Your task to perform on an android device: open a bookmark in the chrome app Image 0: 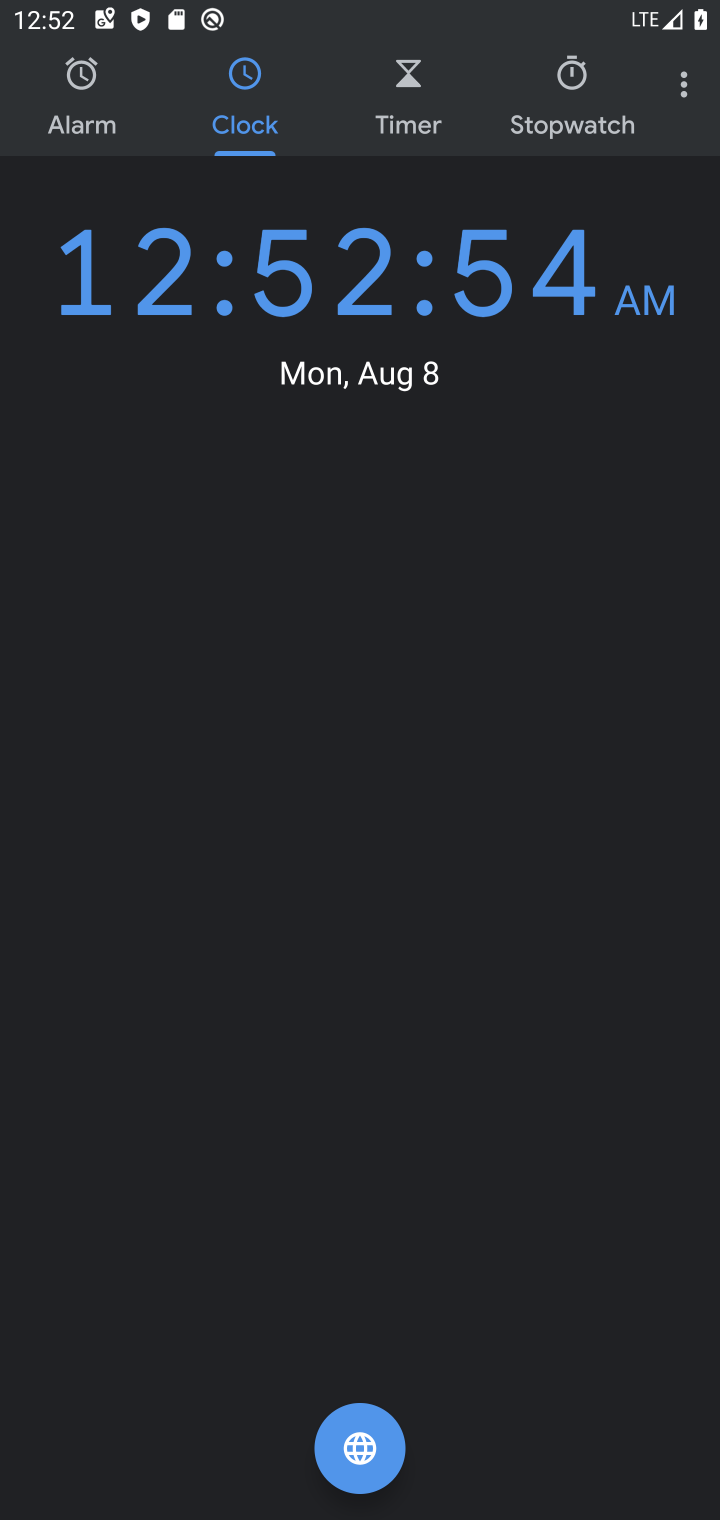
Step 0: press back button
Your task to perform on an android device: open a bookmark in the chrome app Image 1: 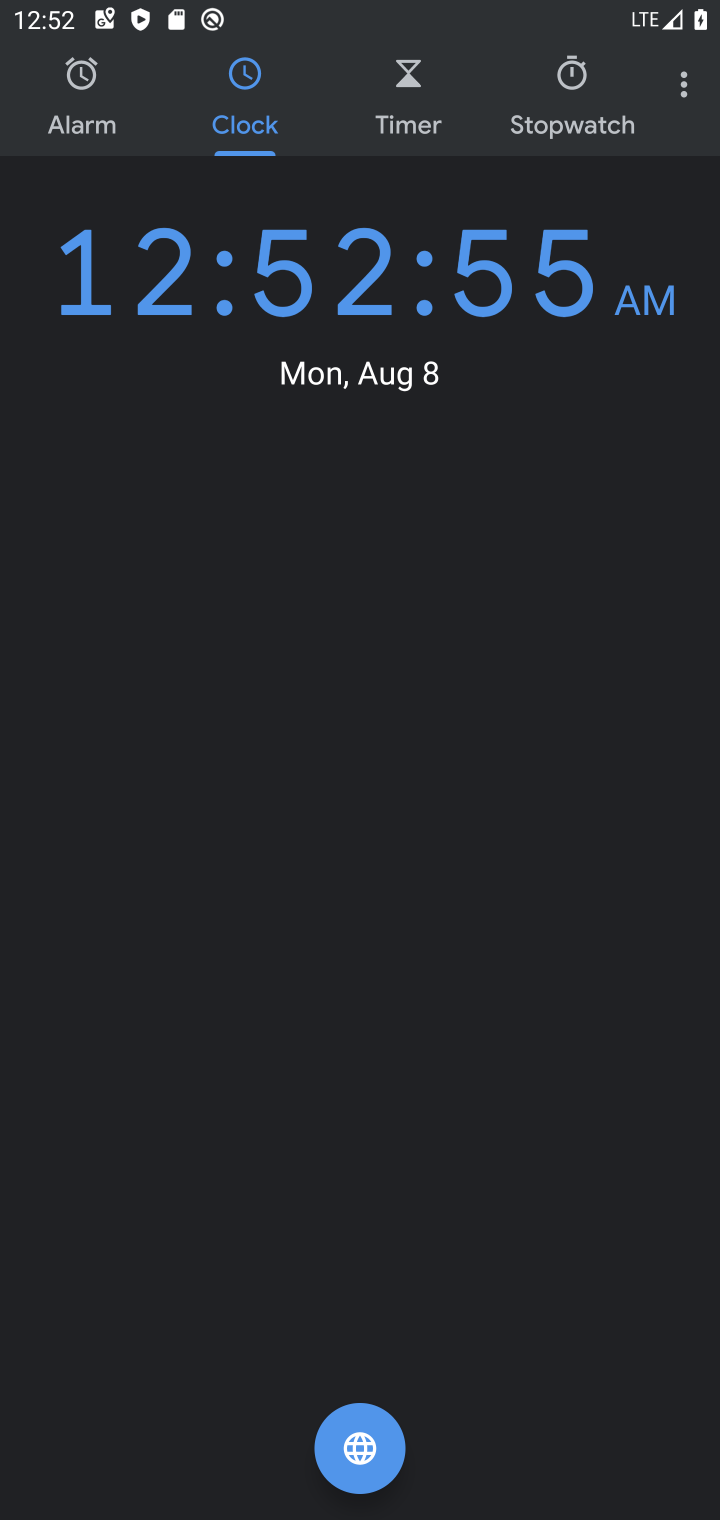
Step 1: press back button
Your task to perform on an android device: open a bookmark in the chrome app Image 2: 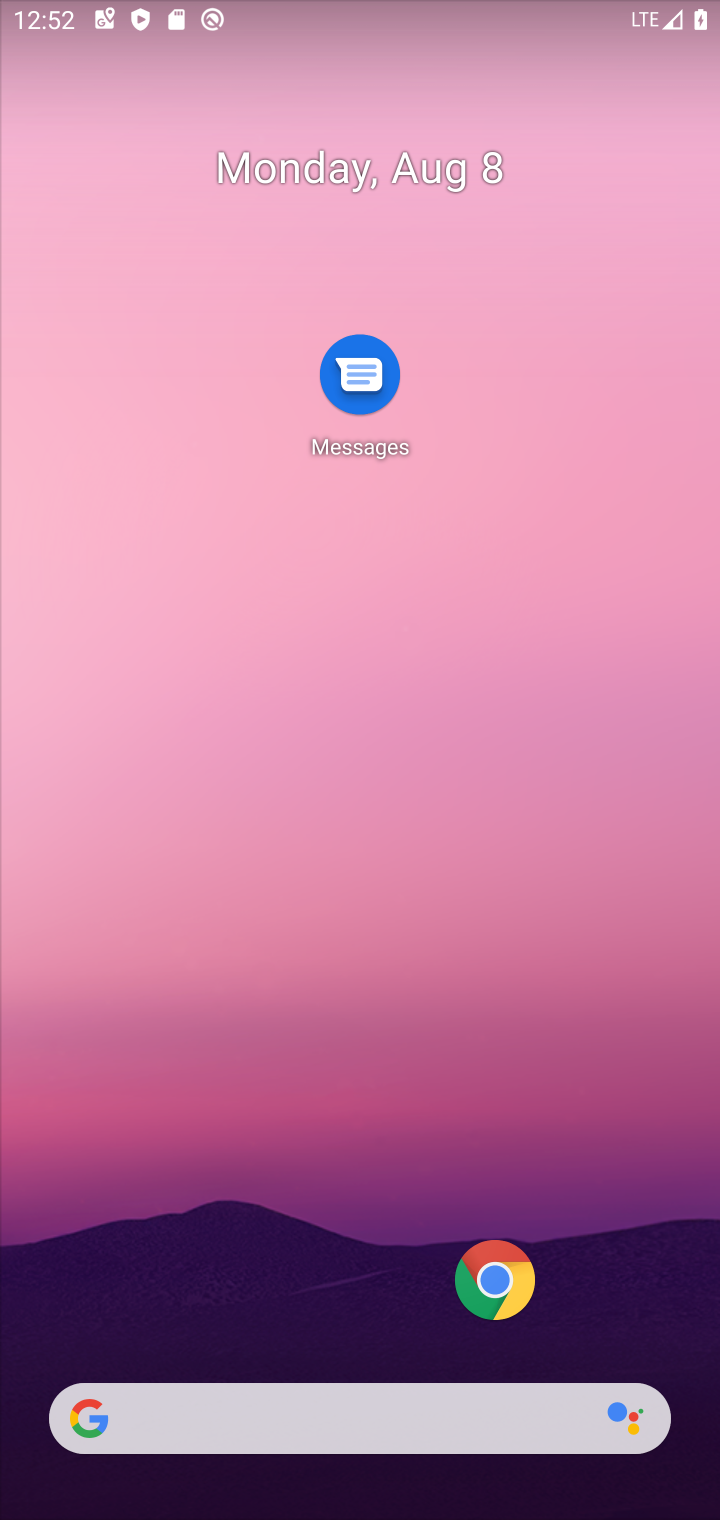
Step 2: press back button
Your task to perform on an android device: open a bookmark in the chrome app Image 3: 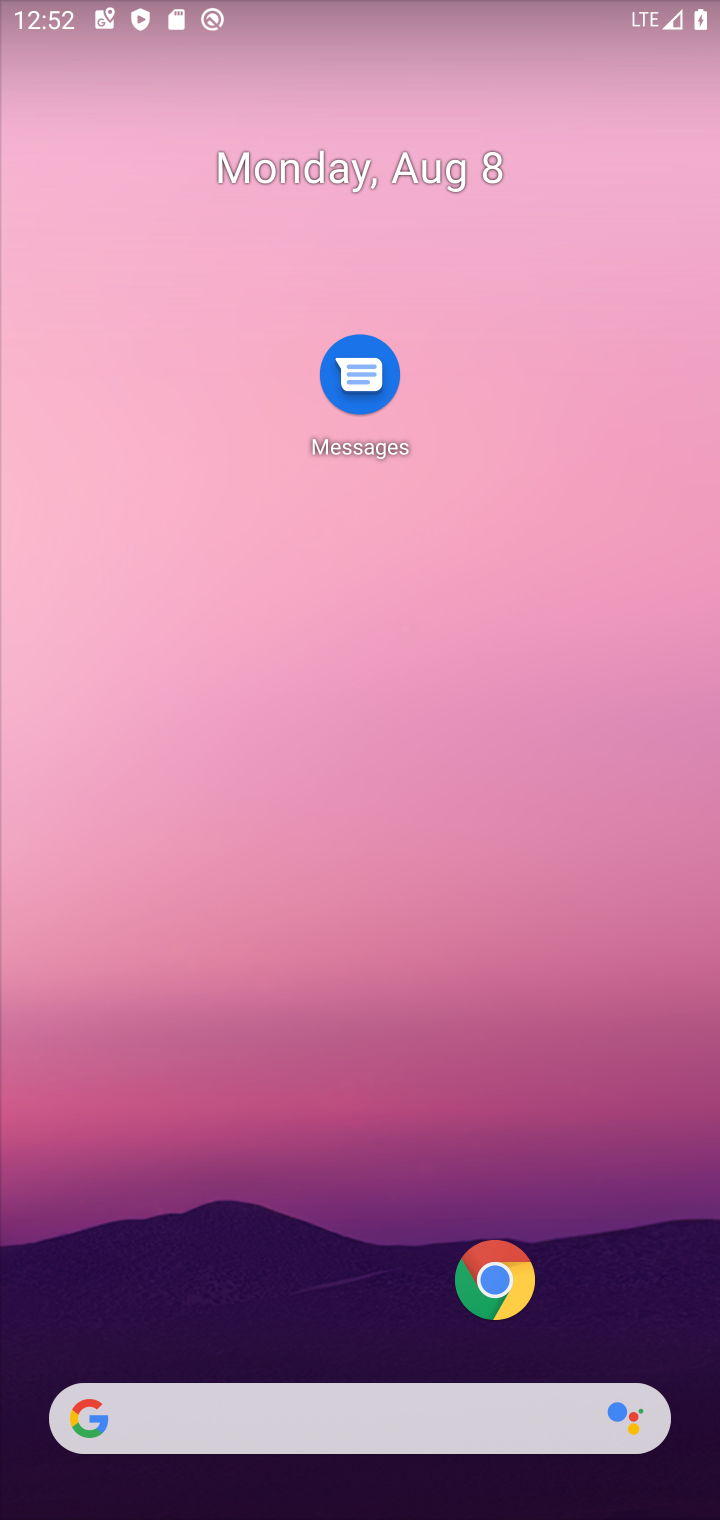
Step 3: drag from (244, 1336) to (511, 1503)
Your task to perform on an android device: open a bookmark in the chrome app Image 4: 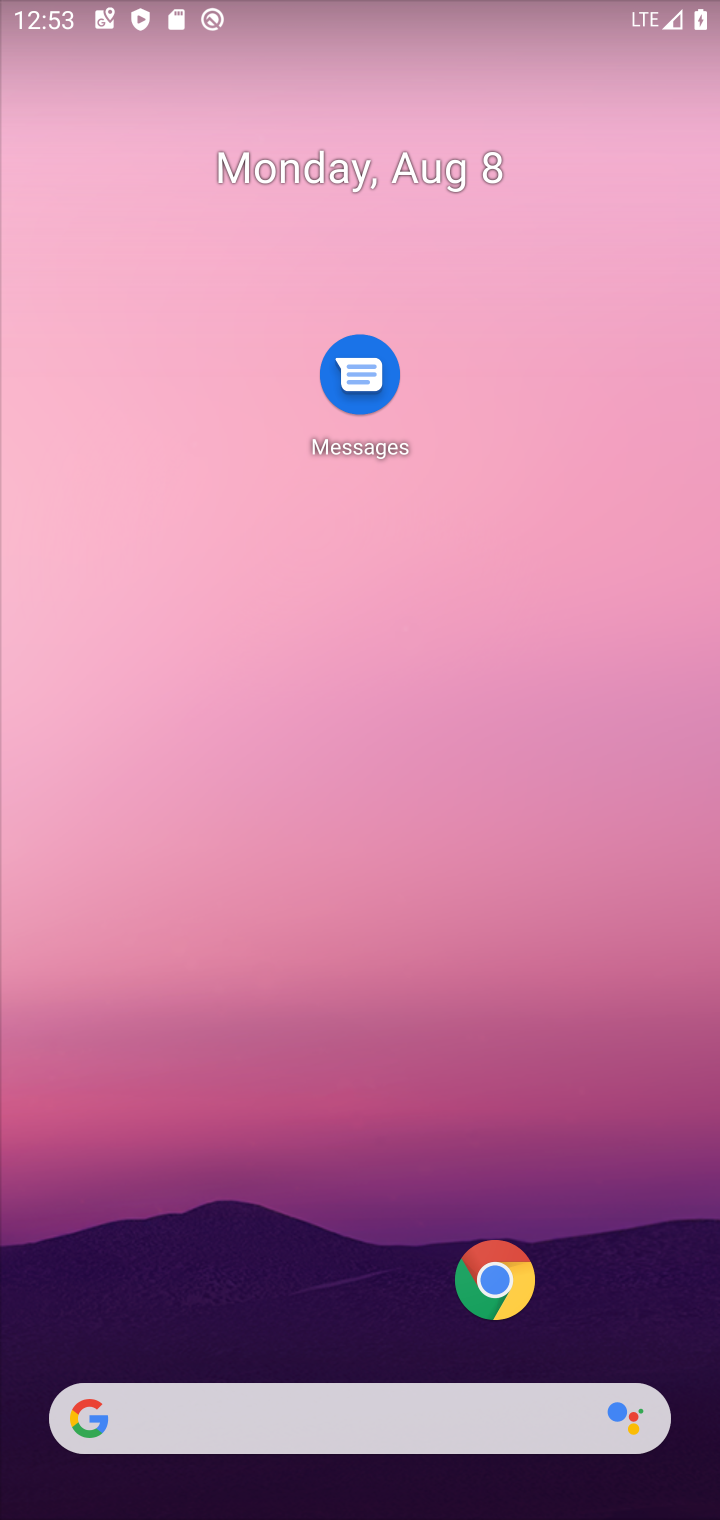
Step 4: click (498, 1281)
Your task to perform on an android device: open a bookmark in the chrome app Image 5: 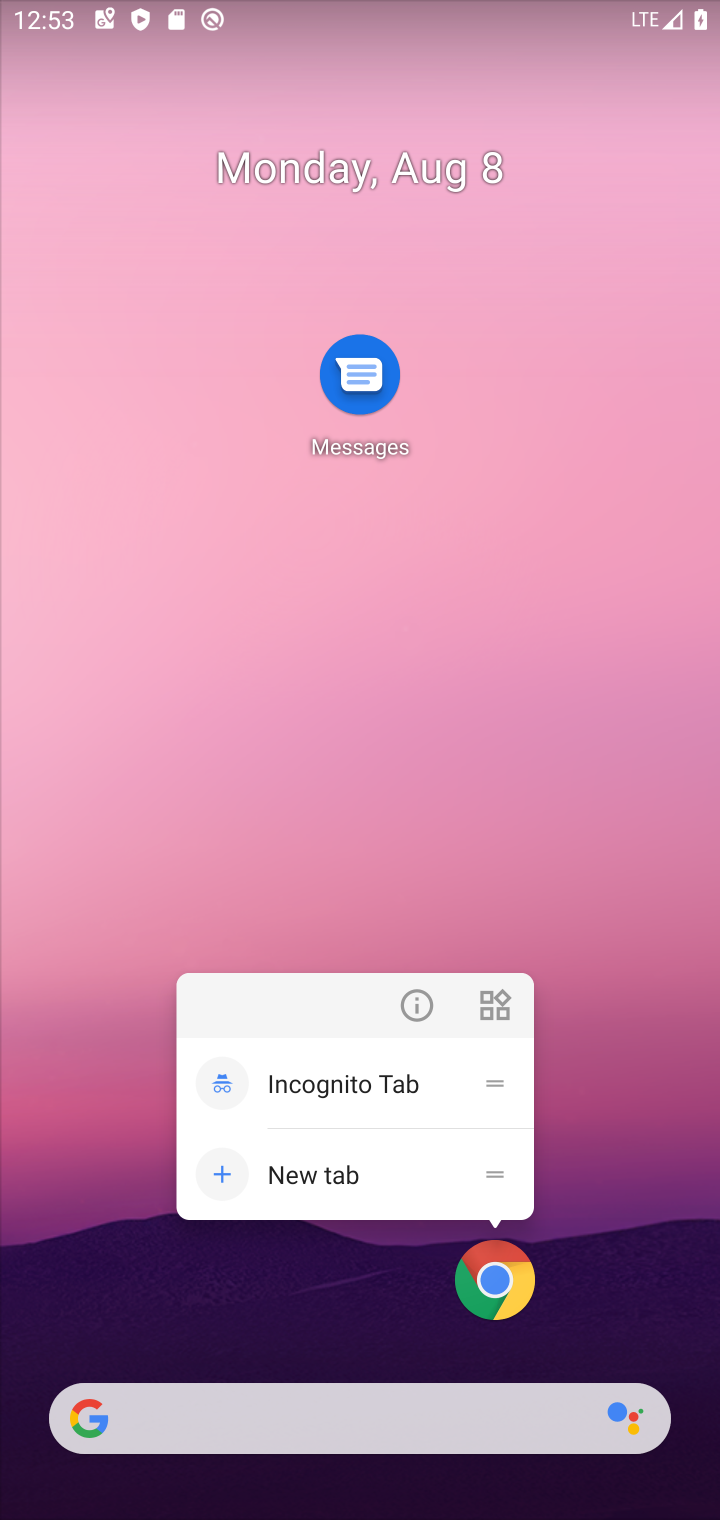
Step 5: click (517, 1269)
Your task to perform on an android device: open a bookmark in the chrome app Image 6: 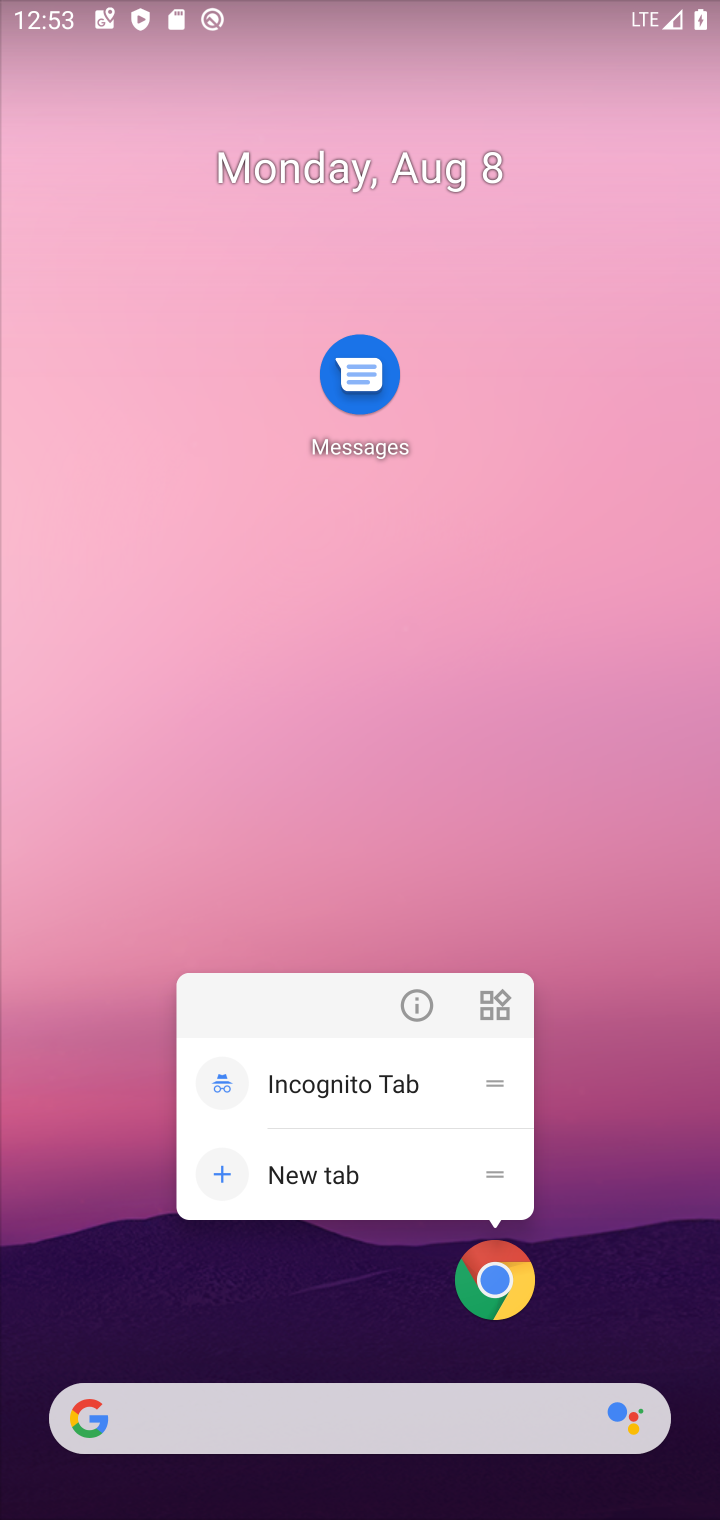
Step 6: click (517, 1287)
Your task to perform on an android device: open a bookmark in the chrome app Image 7: 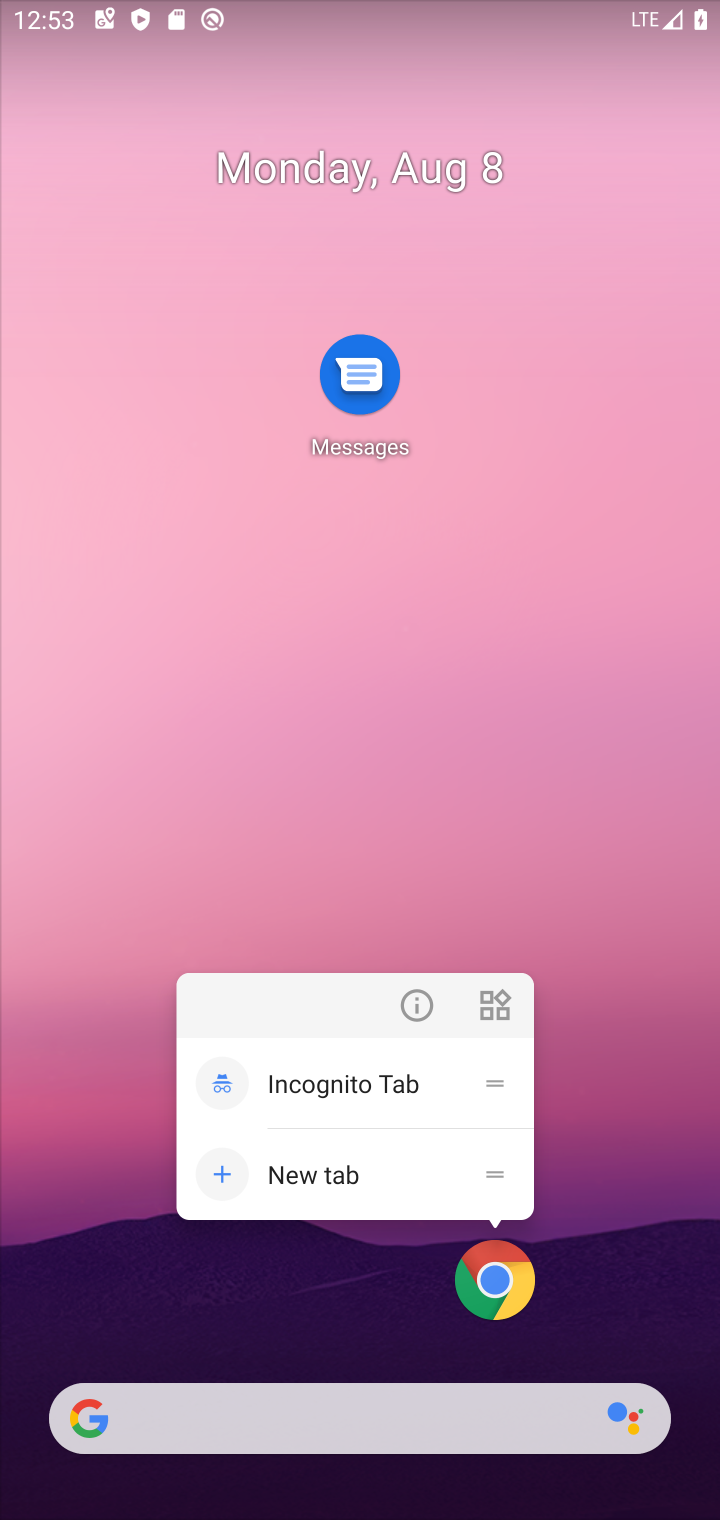
Step 7: click (500, 1277)
Your task to perform on an android device: open a bookmark in the chrome app Image 8: 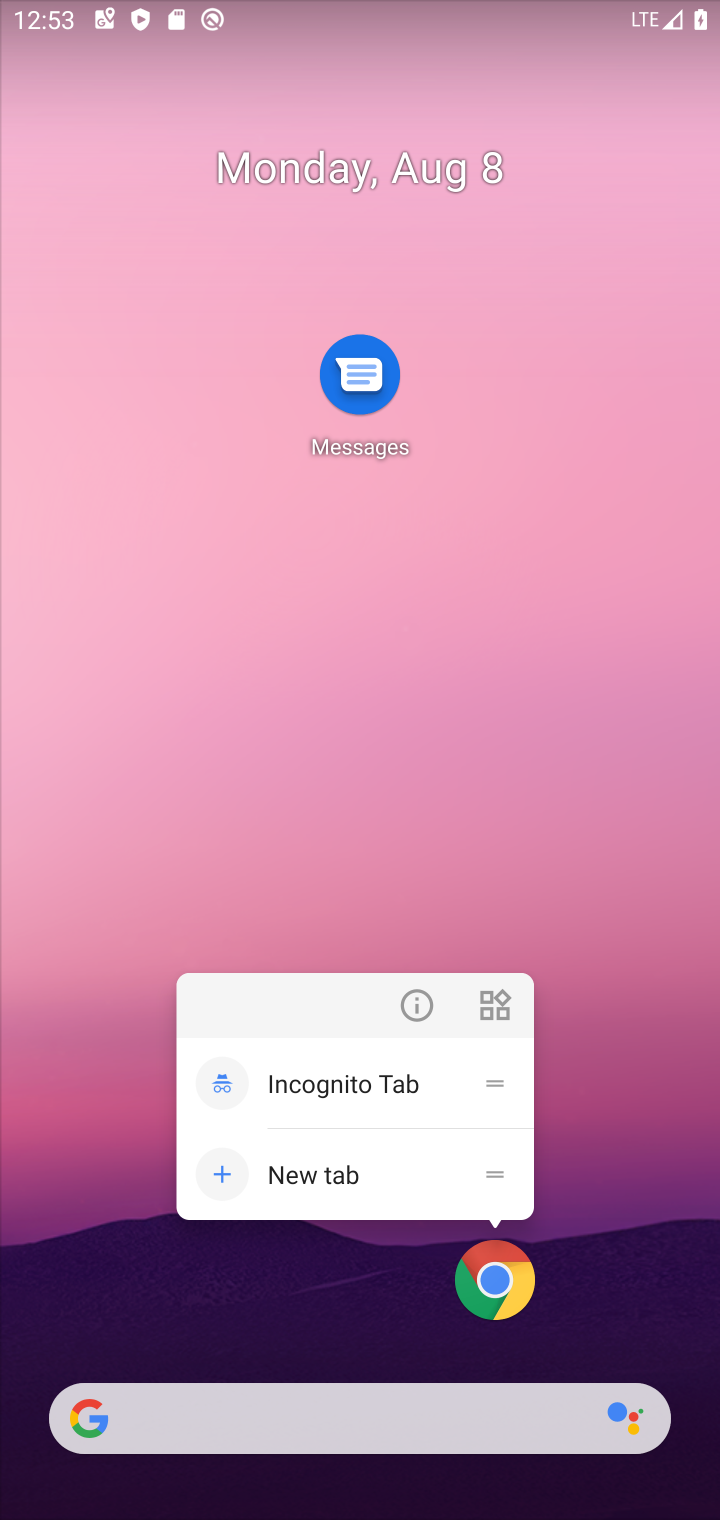
Step 8: click (500, 1277)
Your task to perform on an android device: open a bookmark in the chrome app Image 9: 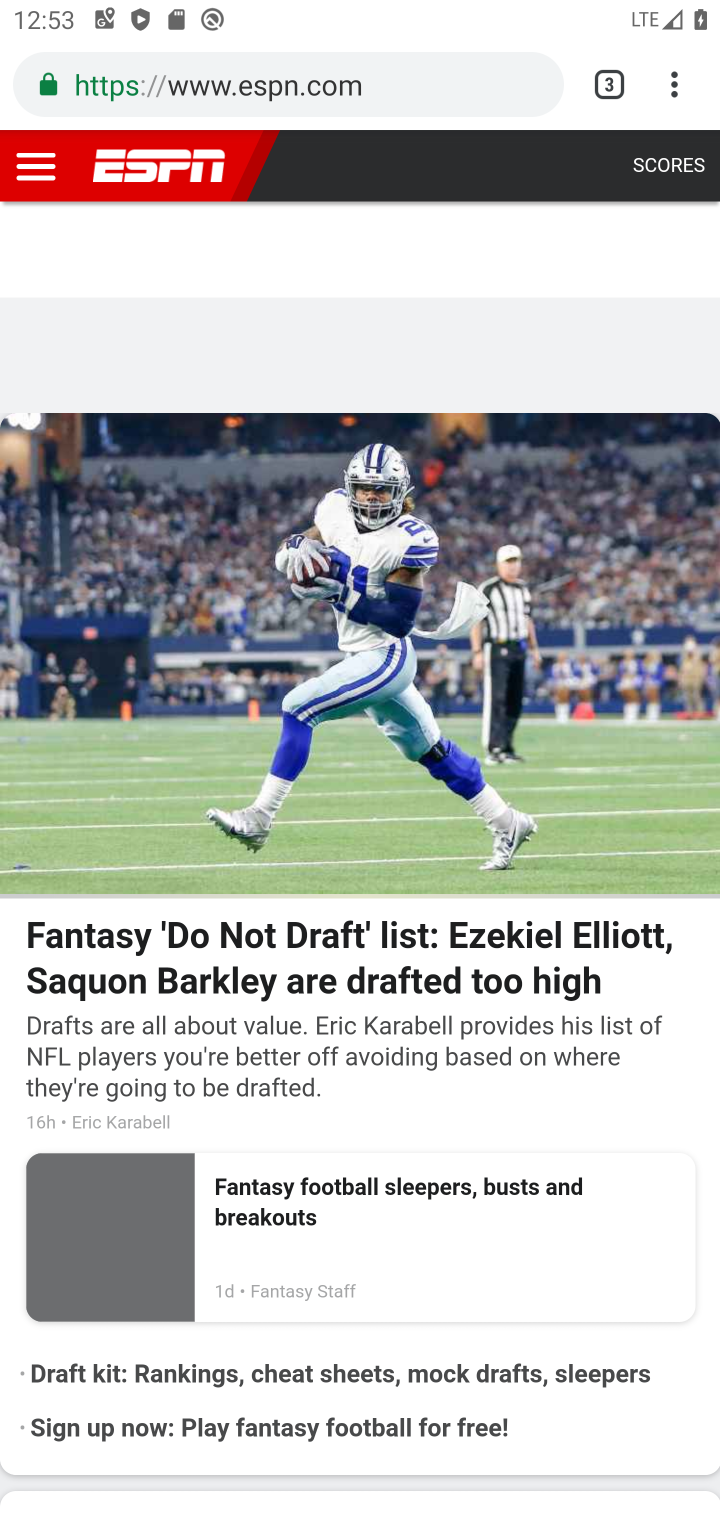
Step 9: drag from (675, 98) to (378, 333)
Your task to perform on an android device: open a bookmark in the chrome app Image 10: 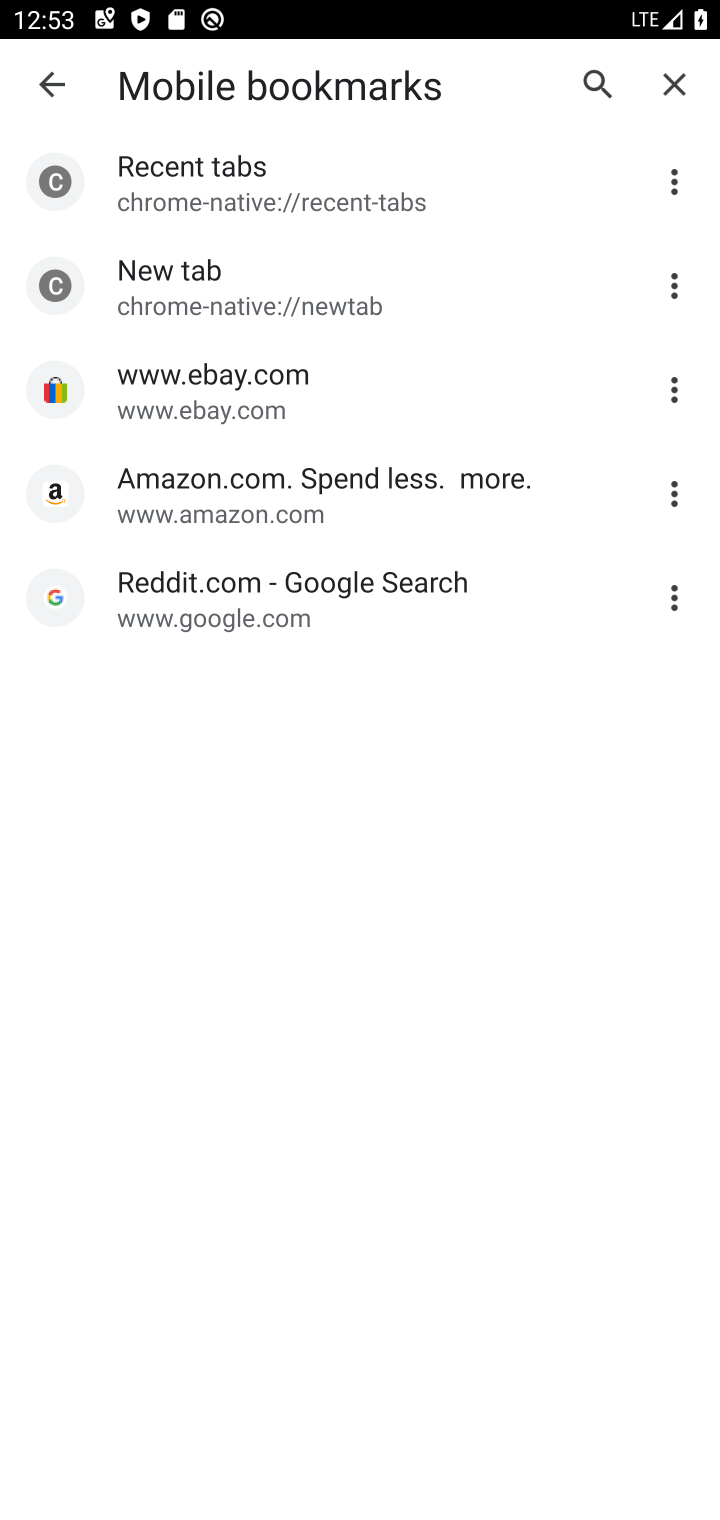
Step 10: click (275, 383)
Your task to perform on an android device: open a bookmark in the chrome app Image 11: 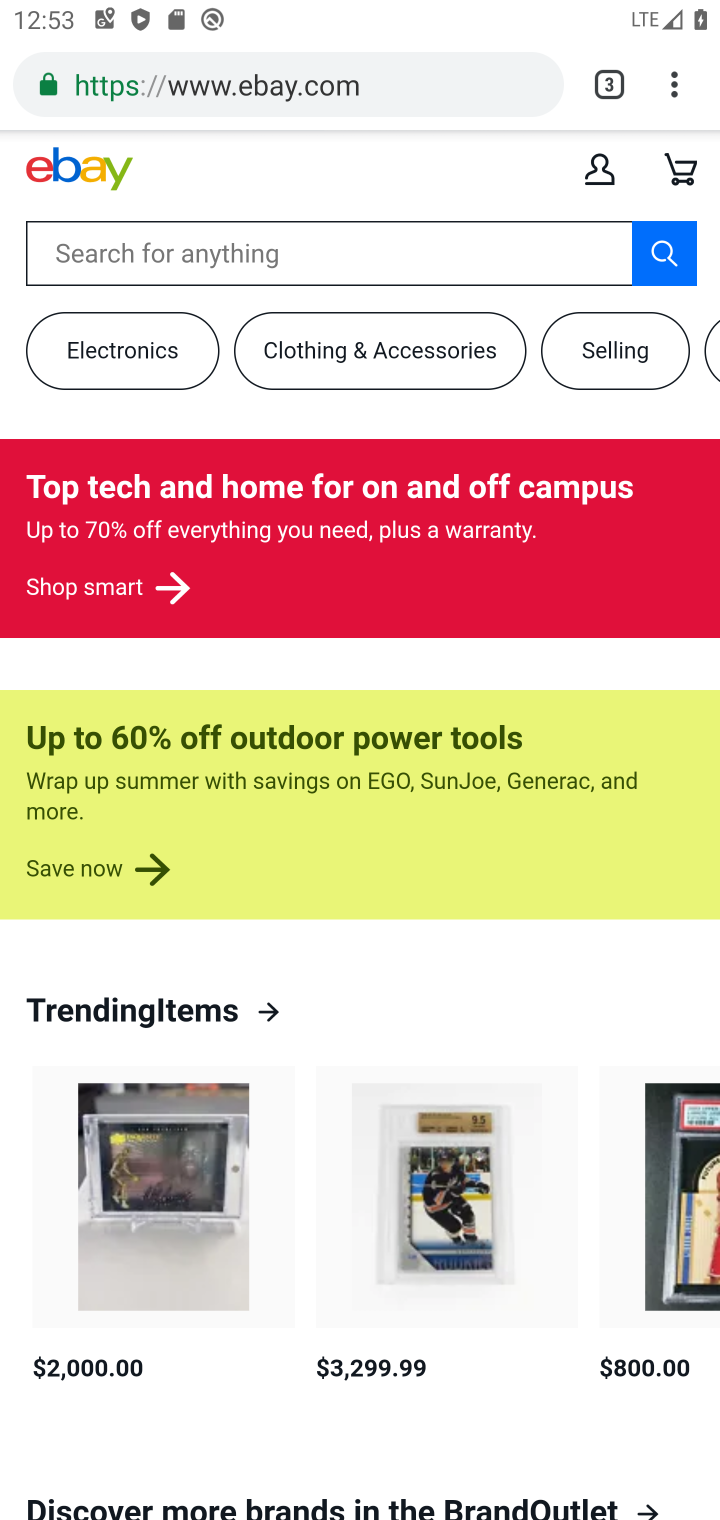
Step 11: task complete